Your task to perform on an android device: Open calendar and show me the third week of next month Image 0: 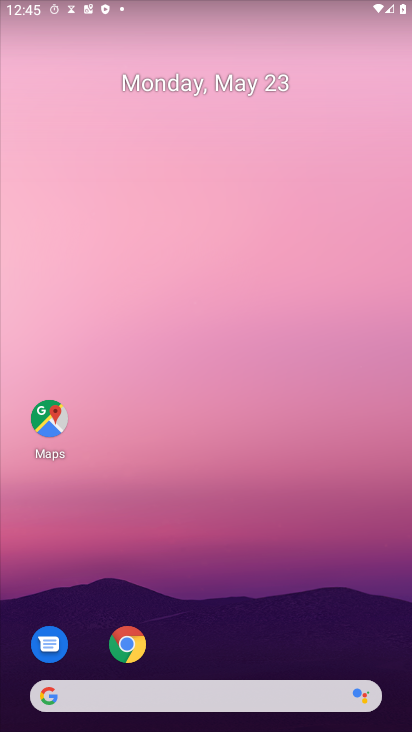
Step 0: click (201, 85)
Your task to perform on an android device: Open calendar and show me the third week of next month Image 1: 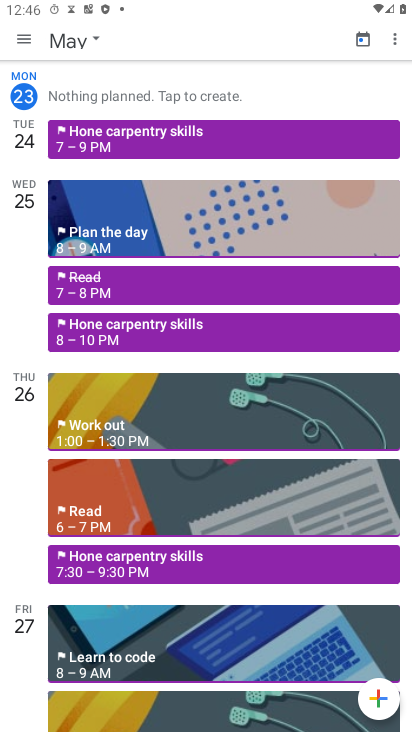
Step 1: click (21, 39)
Your task to perform on an android device: Open calendar and show me the third week of next month Image 2: 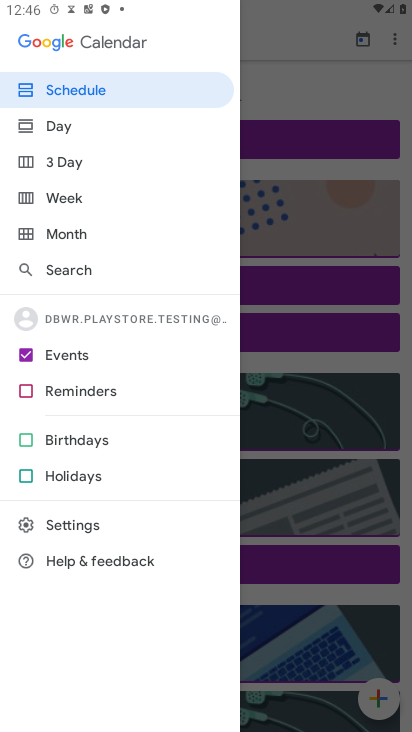
Step 2: click (62, 194)
Your task to perform on an android device: Open calendar and show me the third week of next month Image 3: 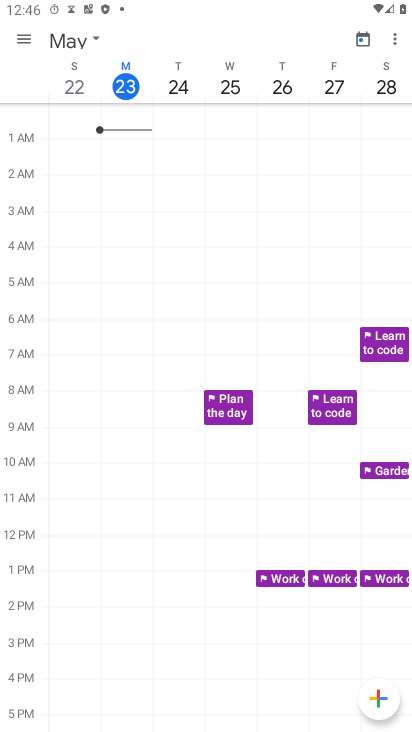
Step 3: click (94, 35)
Your task to perform on an android device: Open calendar and show me the third week of next month Image 4: 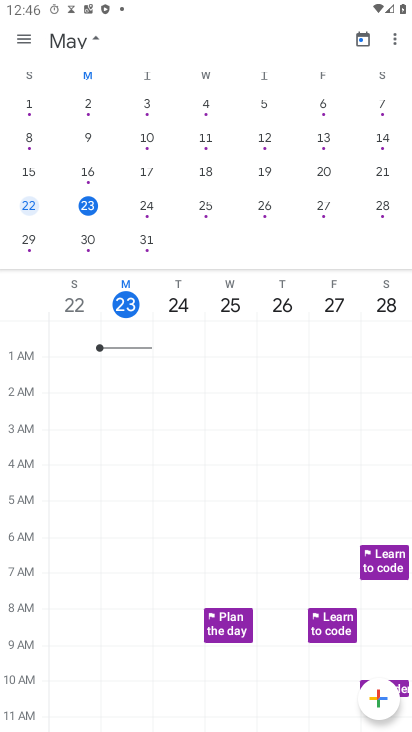
Step 4: drag from (307, 232) to (24, 226)
Your task to perform on an android device: Open calendar and show me the third week of next month Image 5: 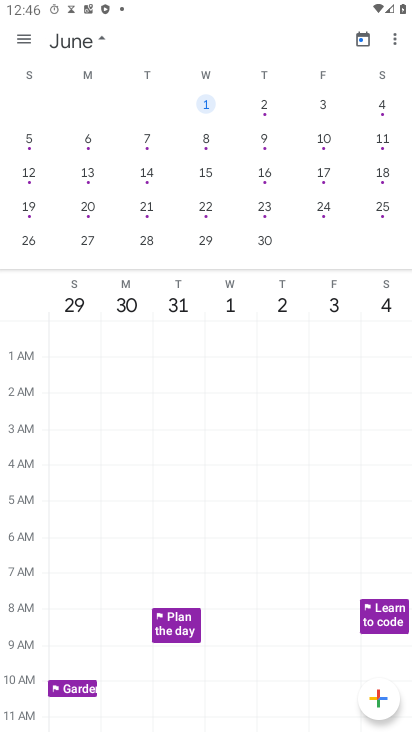
Step 5: click (203, 169)
Your task to perform on an android device: Open calendar and show me the third week of next month Image 6: 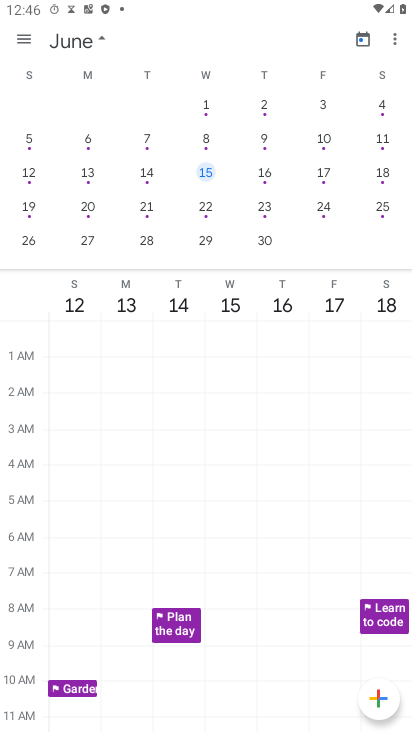
Step 6: task complete